Your task to perform on an android device: Open calendar and show me the fourth week of next month Image 0: 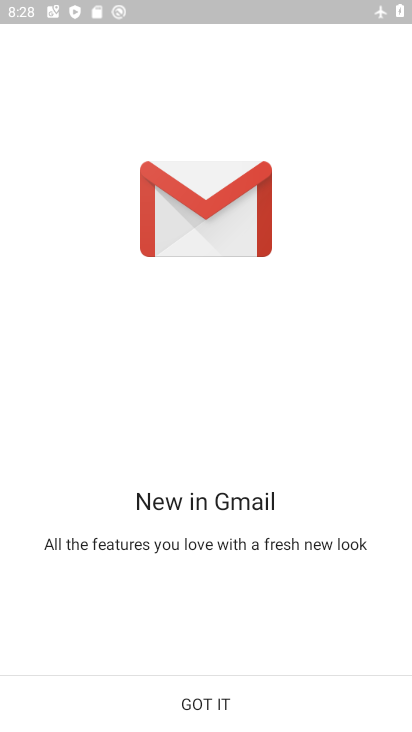
Step 0: click (242, 702)
Your task to perform on an android device: Open calendar and show me the fourth week of next month Image 1: 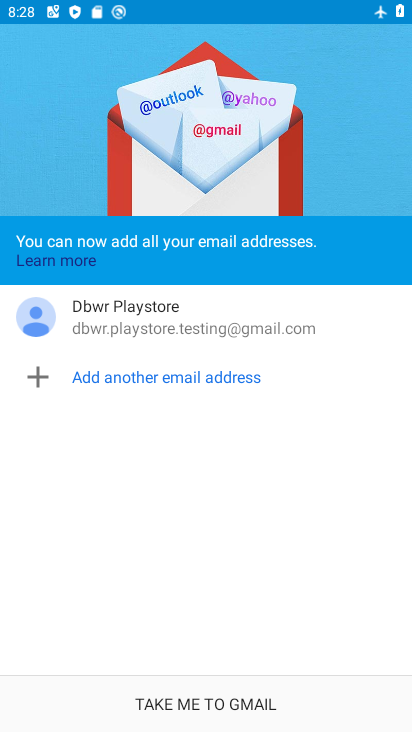
Step 1: press home button
Your task to perform on an android device: Open calendar and show me the fourth week of next month Image 2: 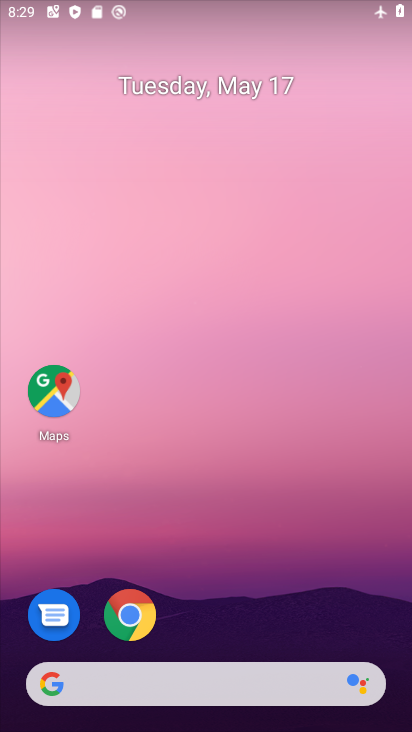
Step 2: drag from (259, 632) to (297, 258)
Your task to perform on an android device: Open calendar and show me the fourth week of next month Image 3: 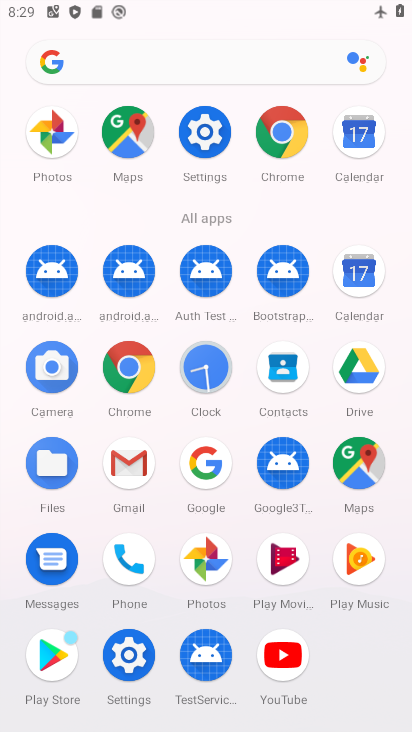
Step 3: click (291, 376)
Your task to perform on an android device: Open calendar and show me the fourth week of next month Image 4: 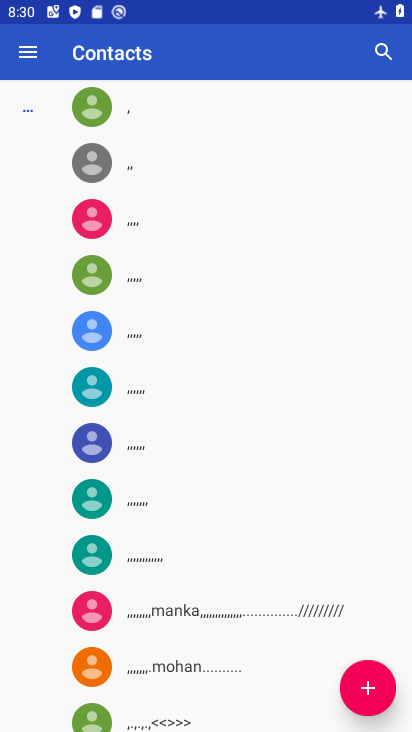
Step 4: press home button
Your task to perform on an android device: Open calendar and show me the fourth week of next month Image 5: 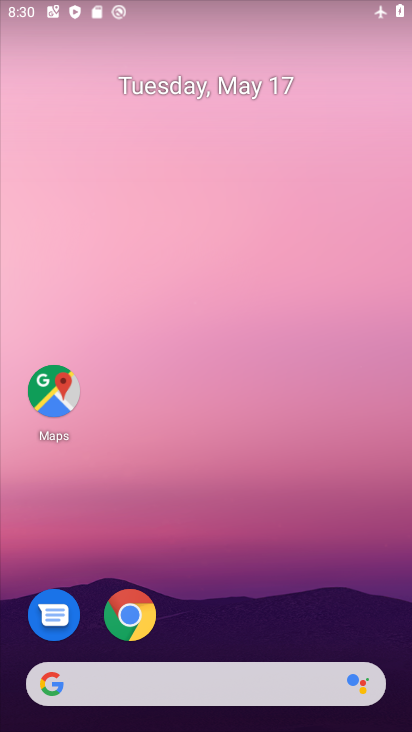
Step 5: drag from (186, 609) to (218, 275)
Your task to perform on an android device: Open calendar and show me the fourth week of next month Image 6: 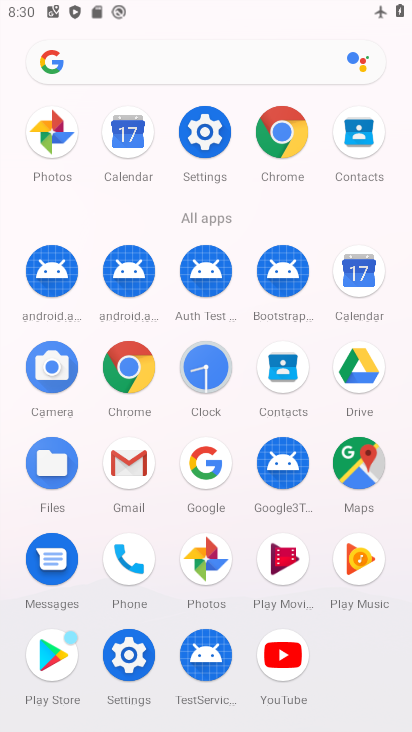
Step 6: click (351, 260)
Your task to perform on an android device: Open calendar and show me the fourth week of next month Image 7: 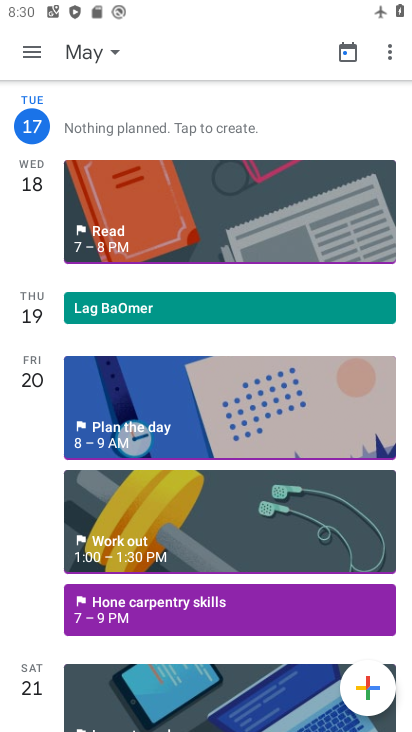
Step 7: click (26, 50)
Your task to perform on an android device: Open calendar and show me the fourth week of next month Image 8: 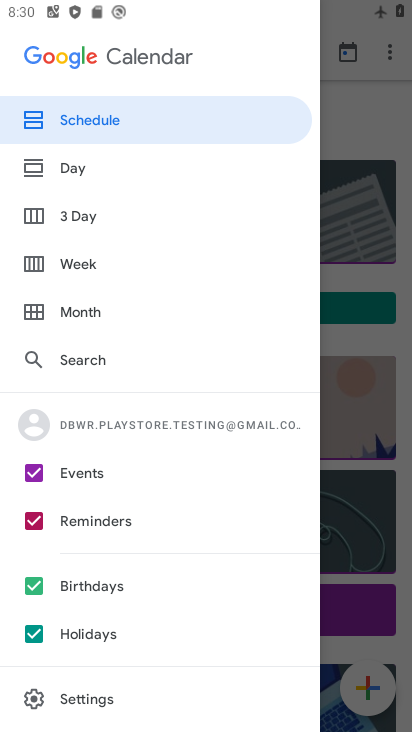
Step 8: click (100, 298)
Your task to perform on an android device: Open calendar and show me the fourth week of next month Image 9: 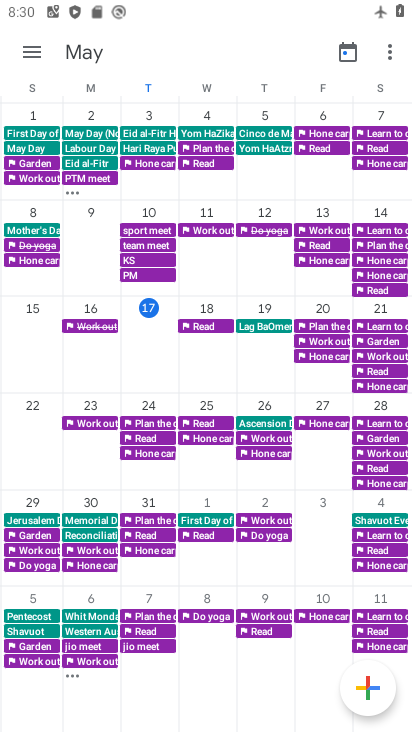
Step 9: task complete